Your task to perform on an android device: see creations saved in the google photos Image 0: 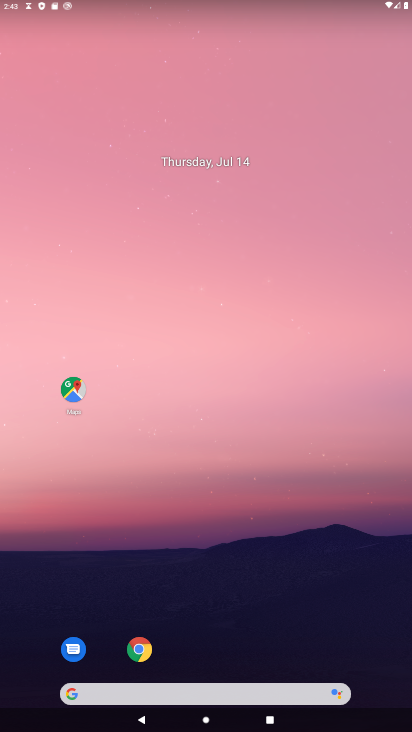
Step 0: drag from (223, 660) to (217, 2)
Your task to perform on an android device: see creations saved in the google photos Image 1: 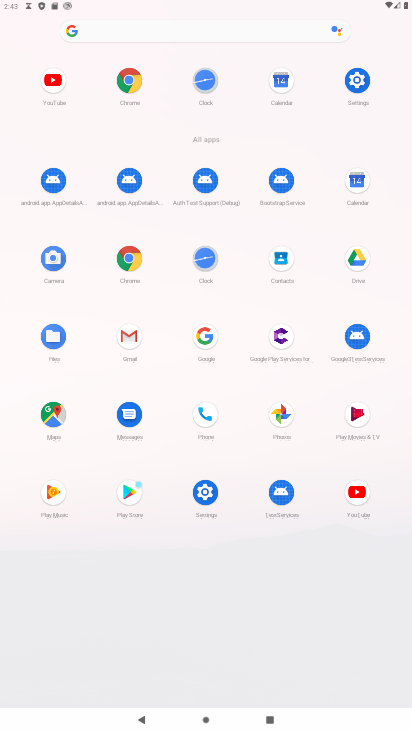
Step 1: click (280, 431)
Your task to perform on an android device: see creations saved in the google photos Image 2: 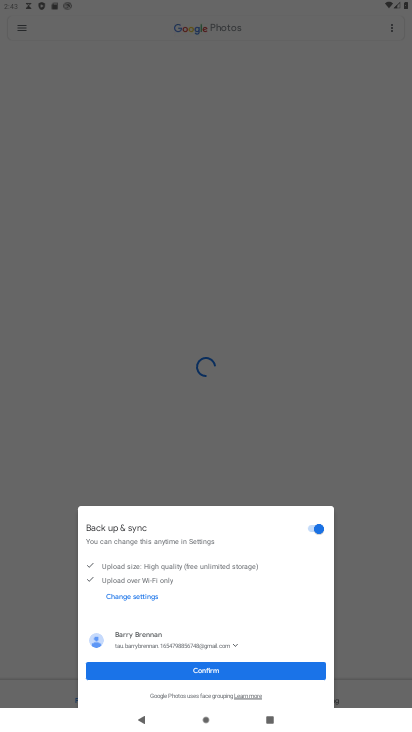
Step 2: click (205, 675)
Your task to perform on an android device: see creations saved in the google photos Image 3: 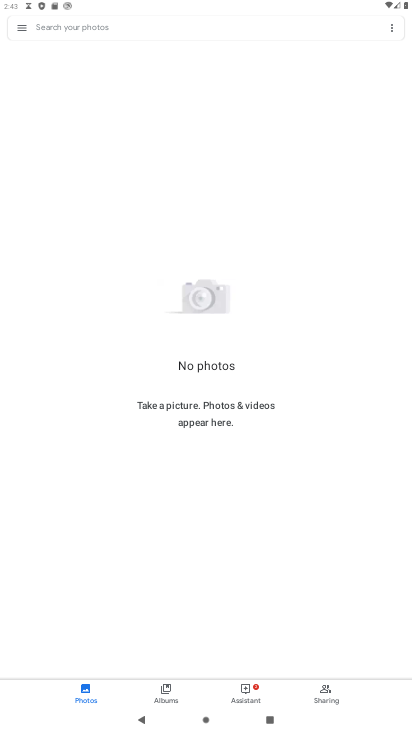
Step 3: click (144, 30)
Your task to perform on an android device: see creations saved in the google photos Image 4: 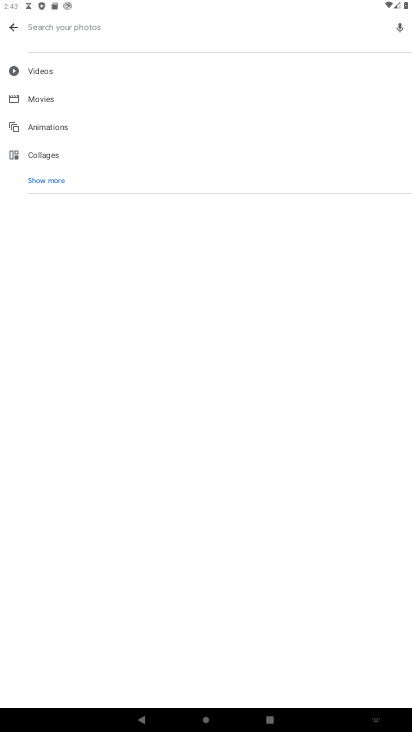
Step 4: type "creations"
Your task to perform on an android device: see creations saved in the google photos Image 5: 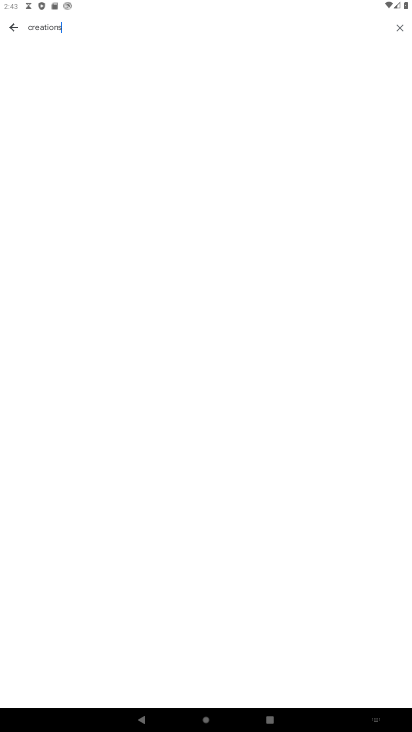
Step 5: click (90, 84)
Your task to perform on an android device: see creations saved in the google photos Image 6: 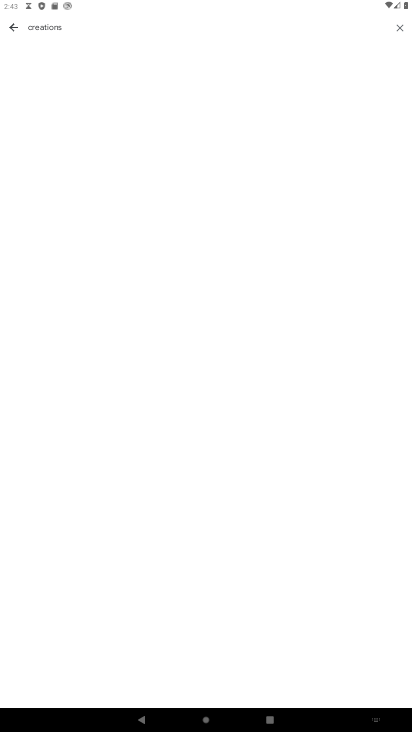
Step 6: task complete